Your task to perform on an android device: Open eBay Image 0: 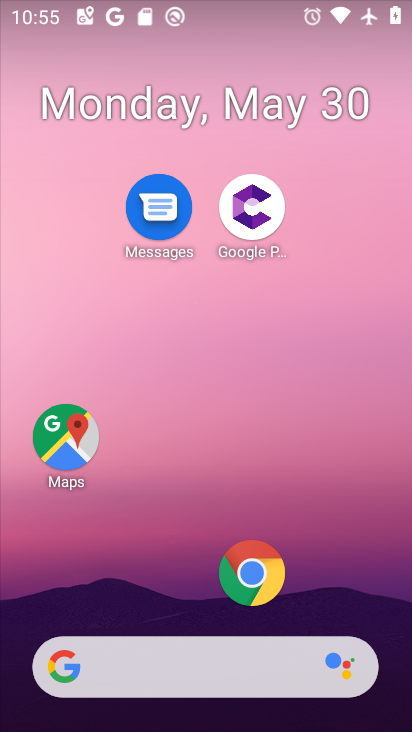
Step 0: drag from (302, 615) to (318, 101)
Your task to perform on an android device: Open eBay Image 1: 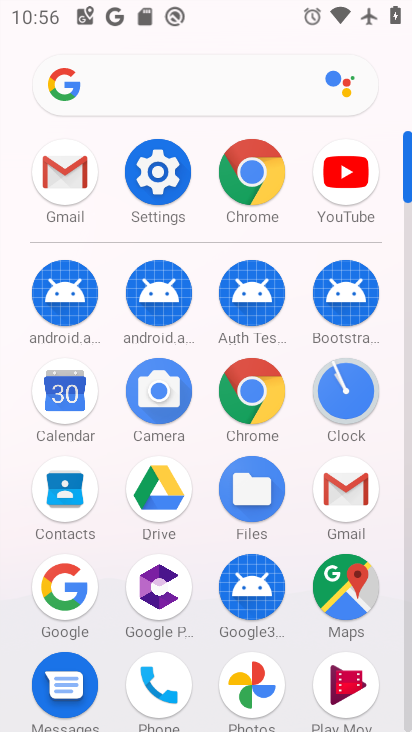
Step 1: click (267, 183)
Your task to perform on an android device: Open eBay Image 2: 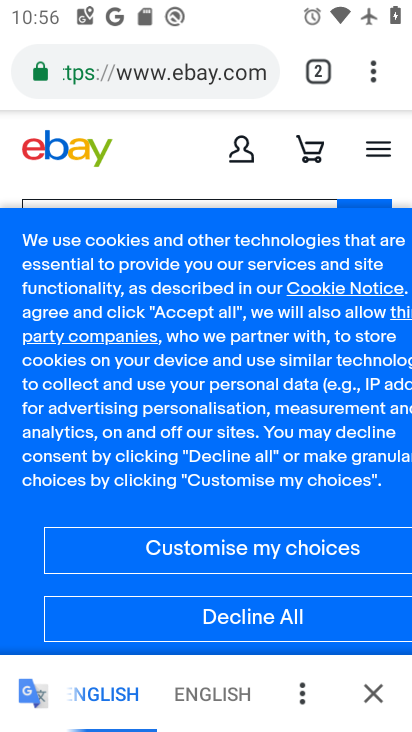
Step 2: task complete